Your task to perform on an android device: Open display settings Image 0: 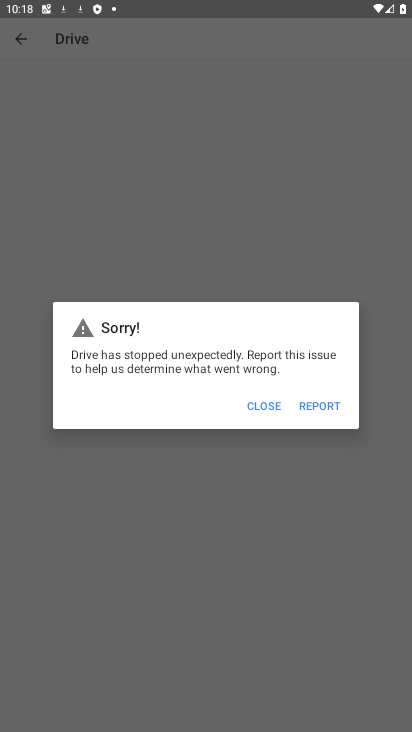
Step 0: press home button
Your task to perform on an android device: Open display settings Image 1: 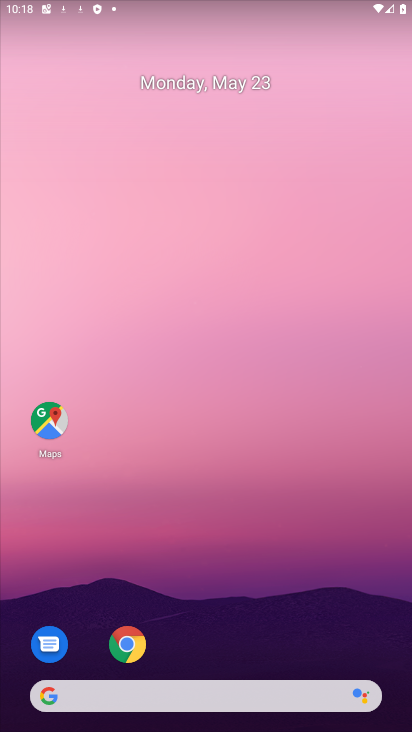
Step 1: drag from (224, 714) to (240, 57)
Your task to perform on an android device: Open display settings Image 2: 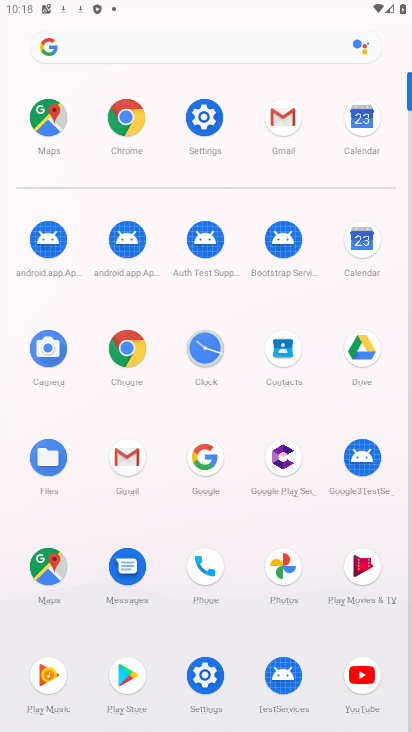
Step 2: click (217, 127)
Your task to perform on an android device: Open display settings Image 3: 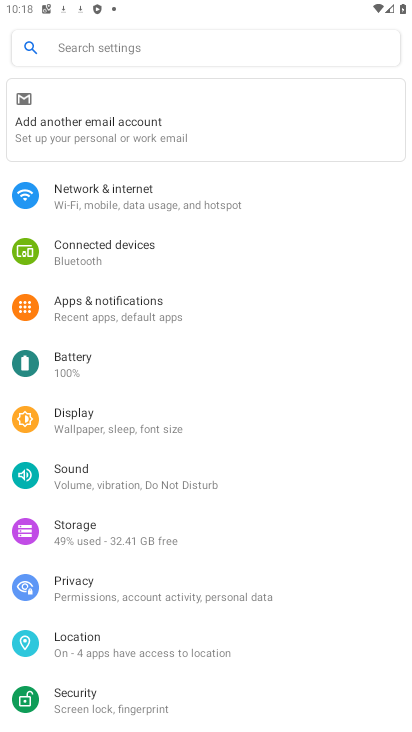
Step 3: click (129, 430)
Your task to perform on an android device: Open display settings Image 4: 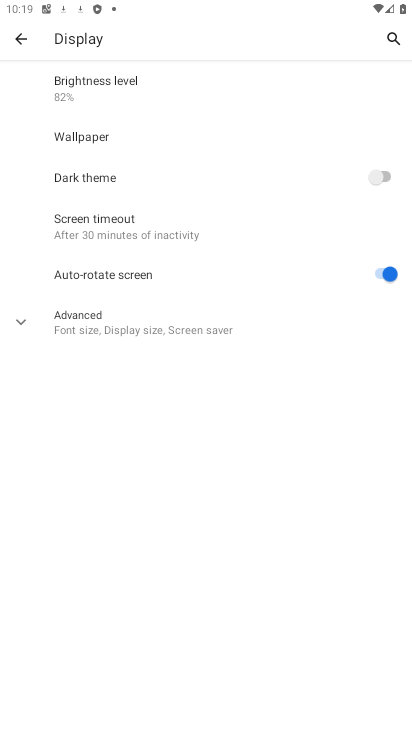
Step 4: task complete